Your task to perform on an android device: toggle notifications settings in the gmail app Image 0: 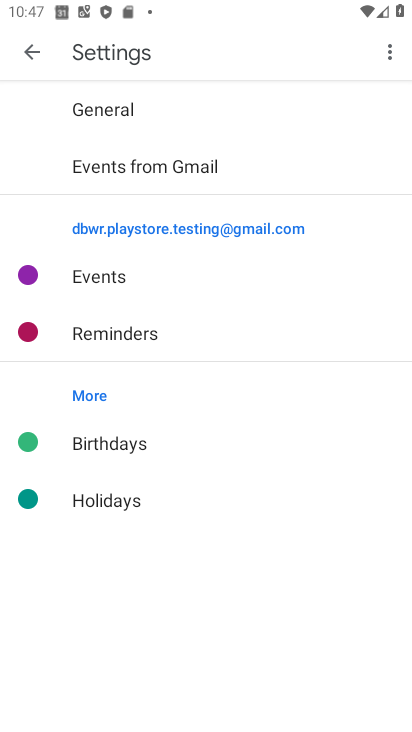
Step 0: press home button
Your task to perform on an android device: toggle notifications settings in the gmail app Image 1: 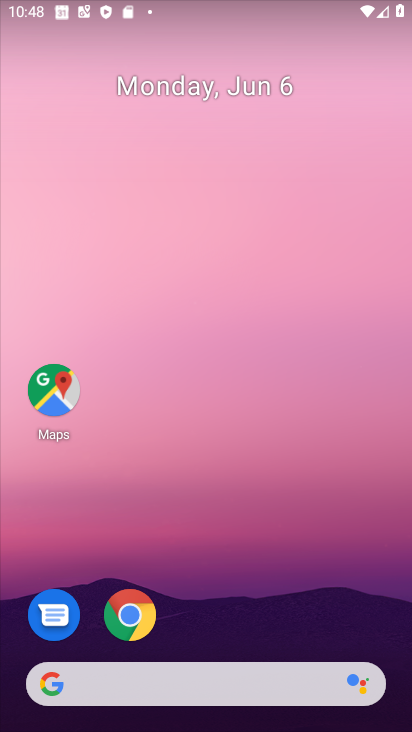
Step 1: drag from (239, 647) to (282, 174)
Your task to perform on an android device: toggle notifications settings in the gmail app Image 2: 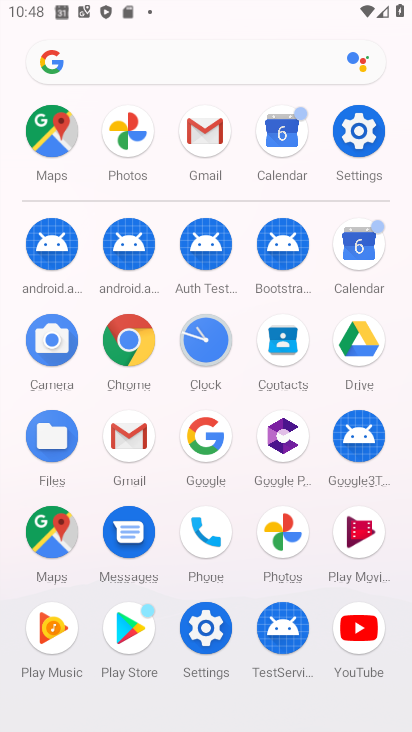
Step 2: click (201, 145)
Your task to perform on an android device: toggle notifications settings in the gmail app Image 3: 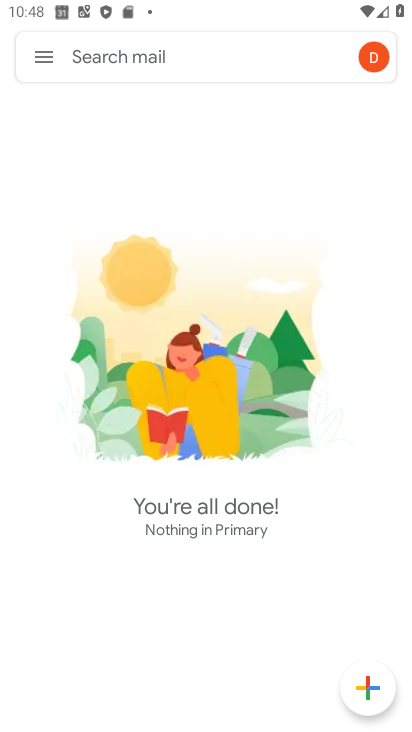
Step 3: click (50, 53)
Your task to perform on an android device: toggle notifications settings in the gmail app Image 4: 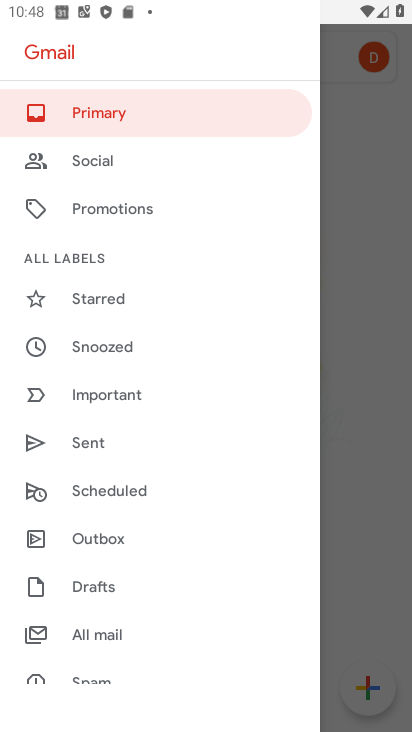
Step 4: drag from (113, 652) to (167, 166)
Your task to perform on an android device: toggle notifications settings in the gmail app Image 5: 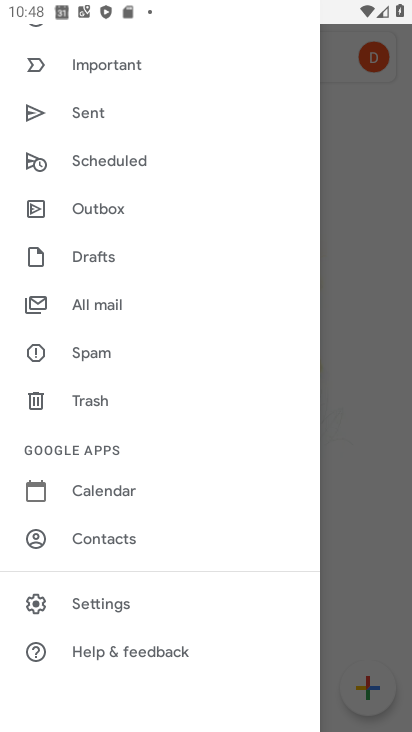
Step 5: click (103, 600)
Your task to perform on an android device: toggle notifications settings in the gmail app Image 6: 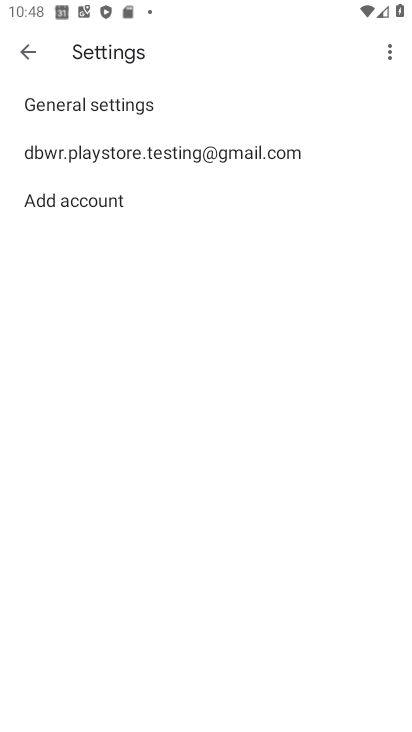
Step 6: click (126, 150)
Your task to perform on an android device: toggle notifications settings in the gmail app Image 7: 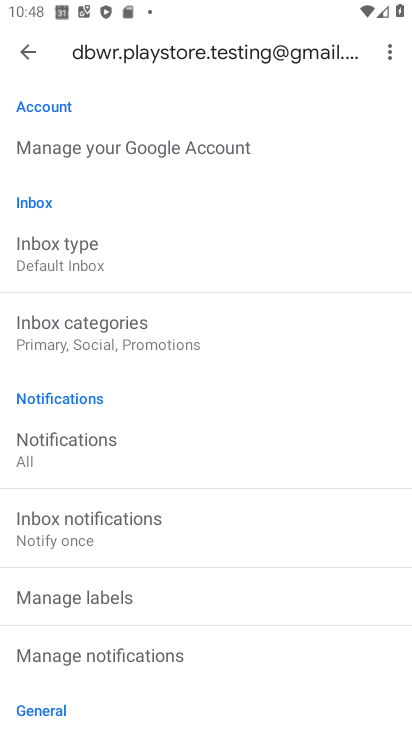
Step 7: click (93, 463)
Your task to perform on an android device: toggle notifications settings in the gmail app Image 8: 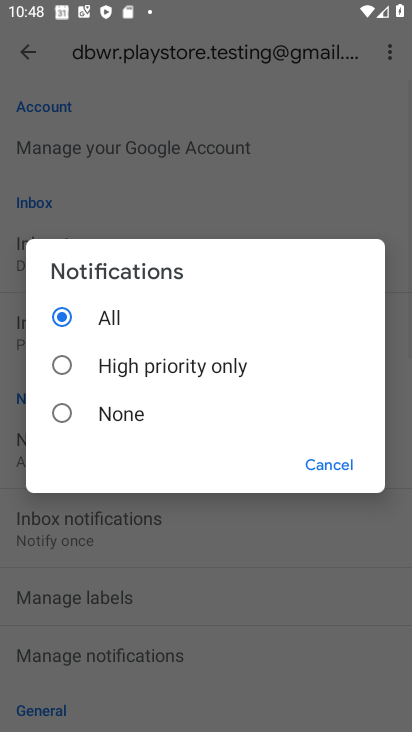
Step 8: click (107, 326)
Your task to perform on an android device: toggle notifications settings in the gmail app Image 9: 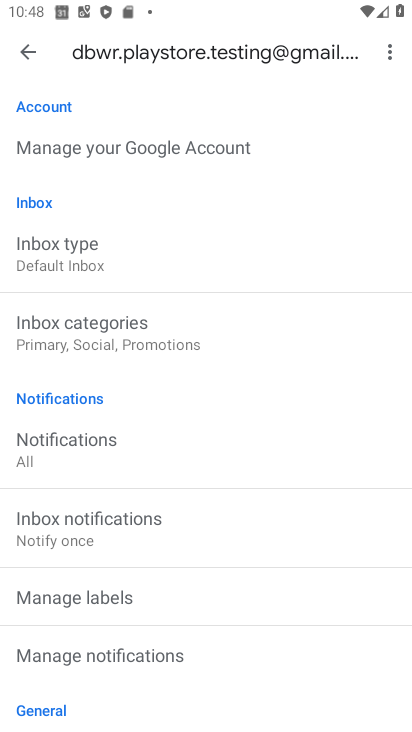
Step 9: task complete